Your task to perform on an android device: Search for Mexican restaurants on Maps Image 0: 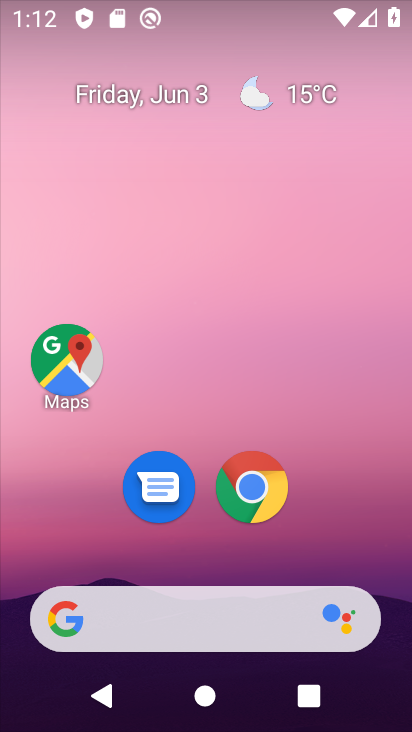
Step 0: click (65, 354)
Your task to perform on an android device: Search for Mexican restaurants on Maps Image 1: 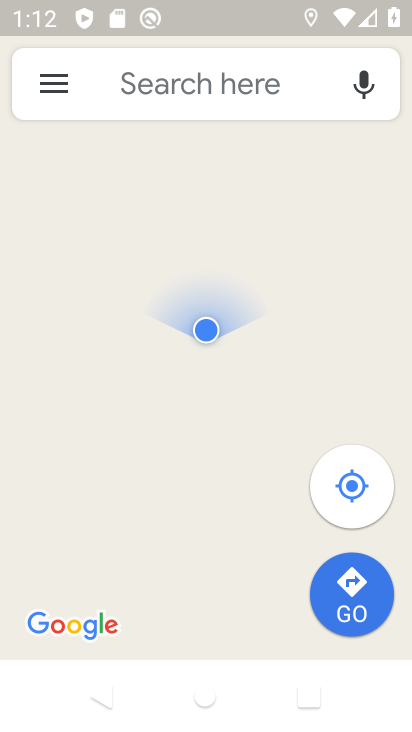
Step 1: click (182, 83)
Your task to perform on an android device: Search for Mexican restaurants on Maps Image 2: 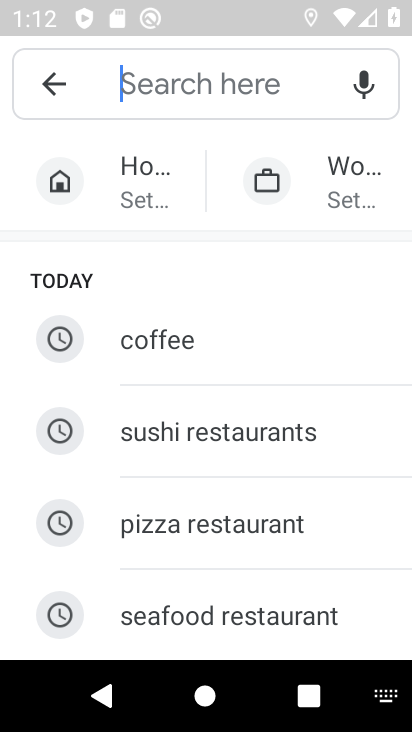
Step 2: drag from (244, 607) to (234, 237)
Your task to perform on an android device: Search for Mexican restaurants on Maps Image 3: 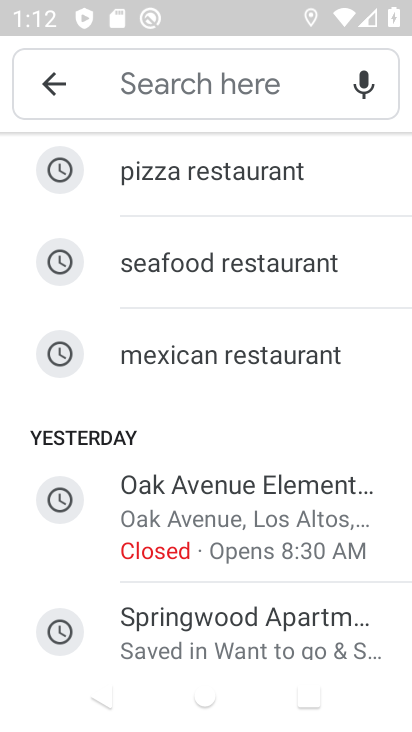
Step 3: click (221, 351)
Your task to perform on an android device: Search for Mexican restaurants on Maps Image 4: 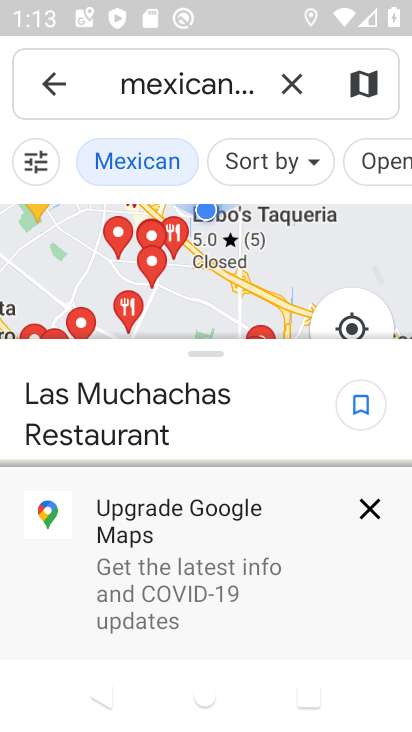
Step 4: click (361, 507)
Your task to perform on an android device: Search for Mexican restaurants on Maps Image 5: 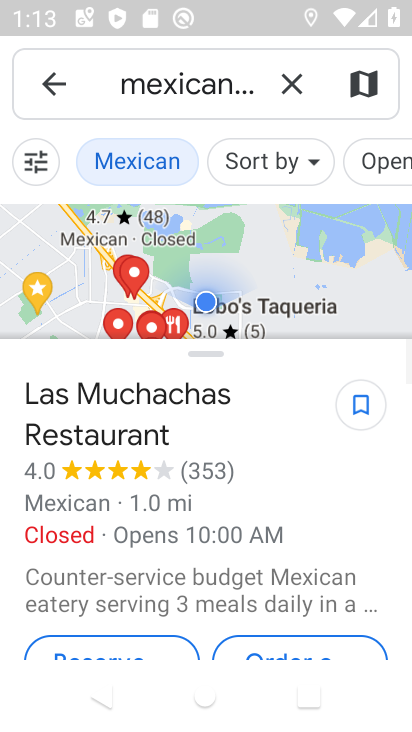
Step 5: task complete